Your task to perform on an android device: Show me productivity apps on the Play Store Image 0: 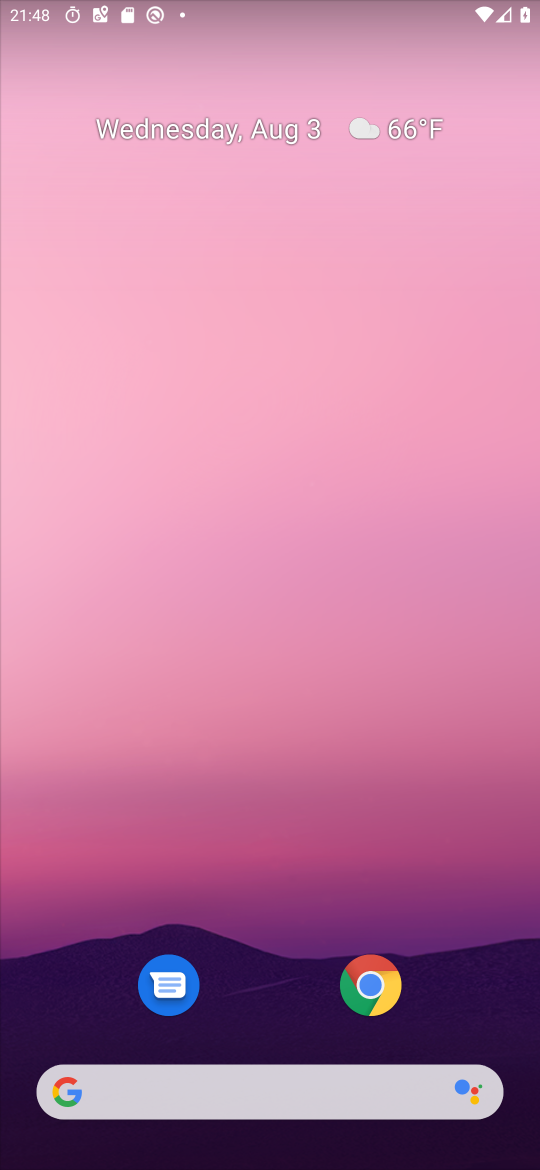
Step 0: drag from (244, 995) to (246, 313)
Your task to perform on an android device: Show me productivity apps on the Play Store Image 1: 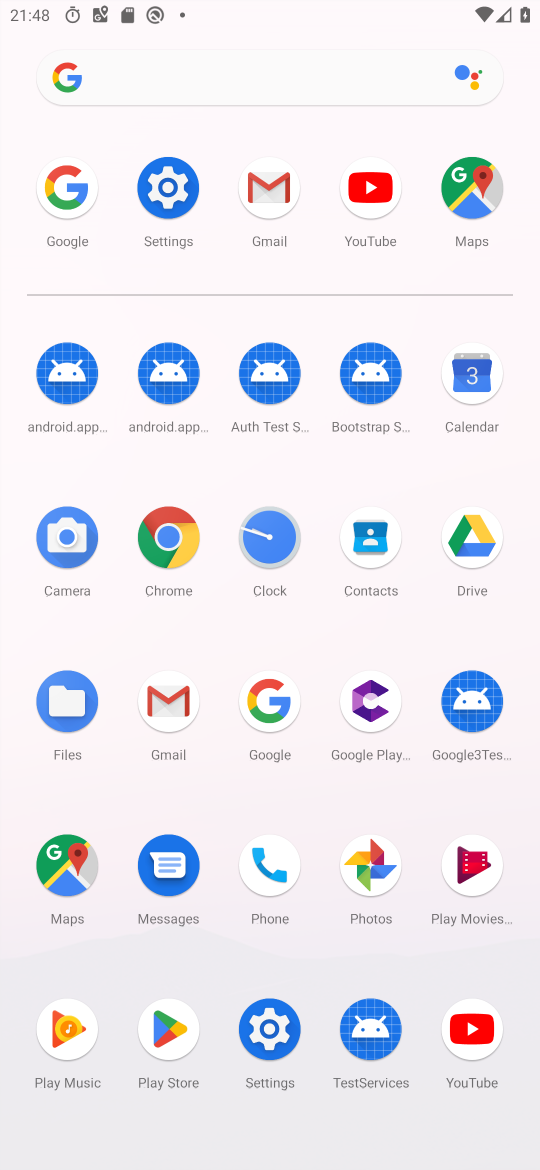
Step 1: click (171, 1033)
Your task to perform on an android device: Show me productivity apps on the Play Store Image 2: 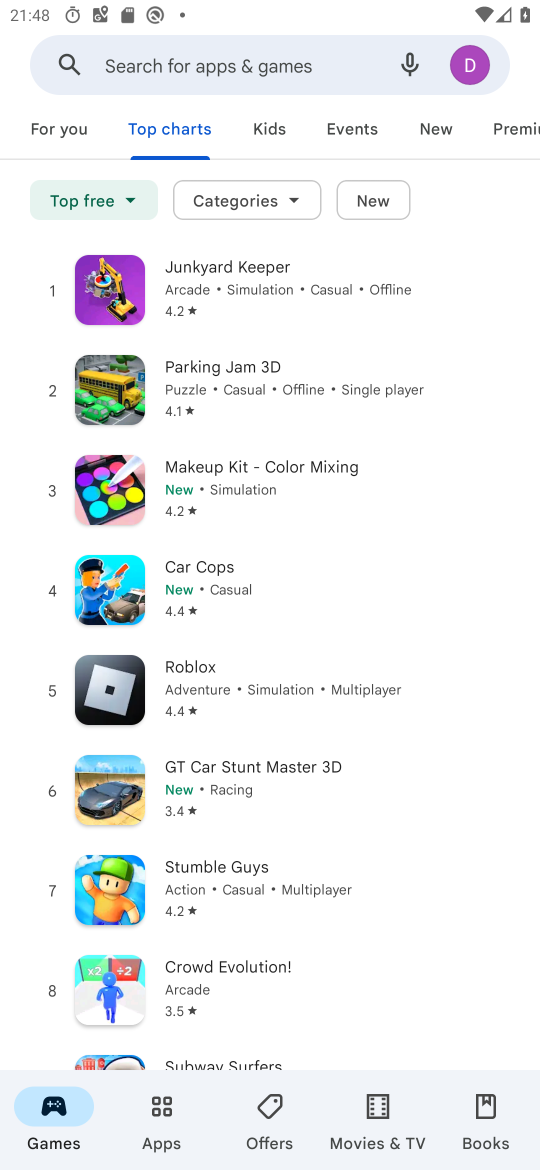
Step 2: click (156, 1131)
Your task to perform on an android device: Show me productivity apps on the Play Store Image 3: 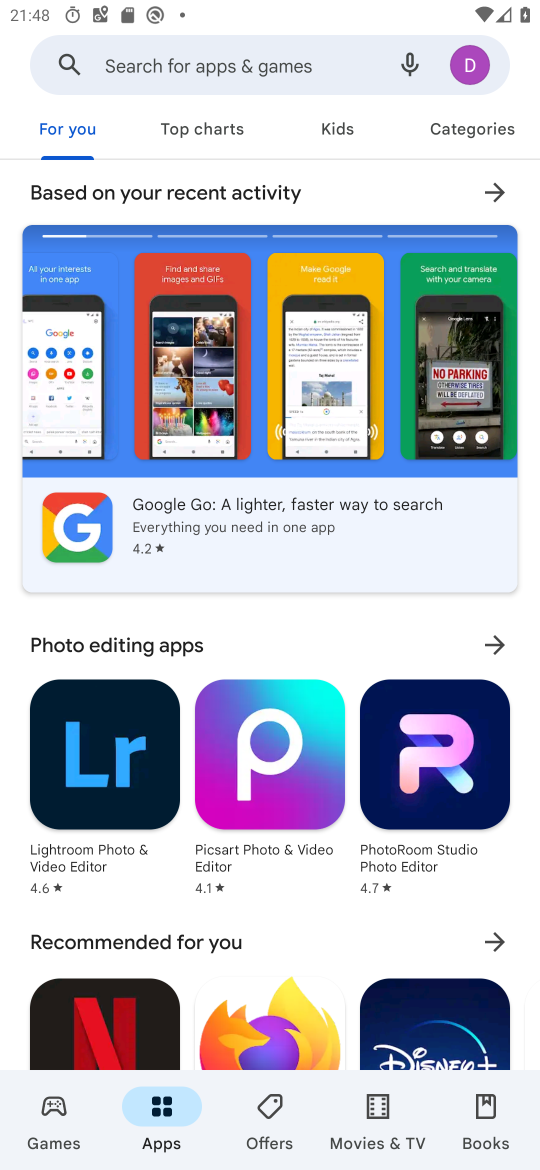
Step 3: drag from (321, 132) to (189, 129)
Your task to perform on an android device: Show me productivity apps on the Play Store Image 4: 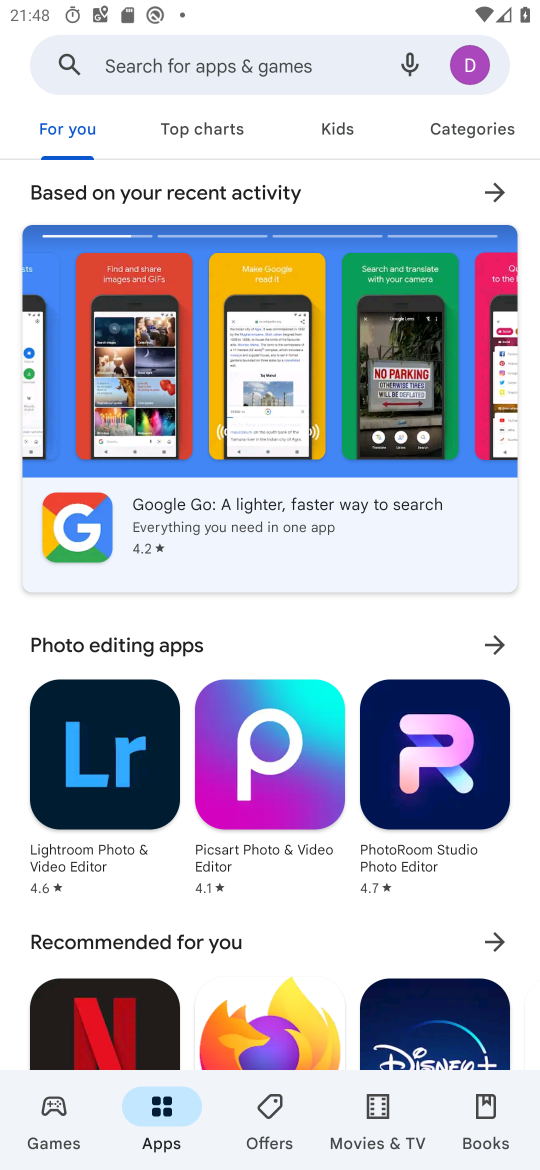
Step 4: click (440, 126)
Your task to perform on an android device: Show me productivity apps on the Play Store Image 5: 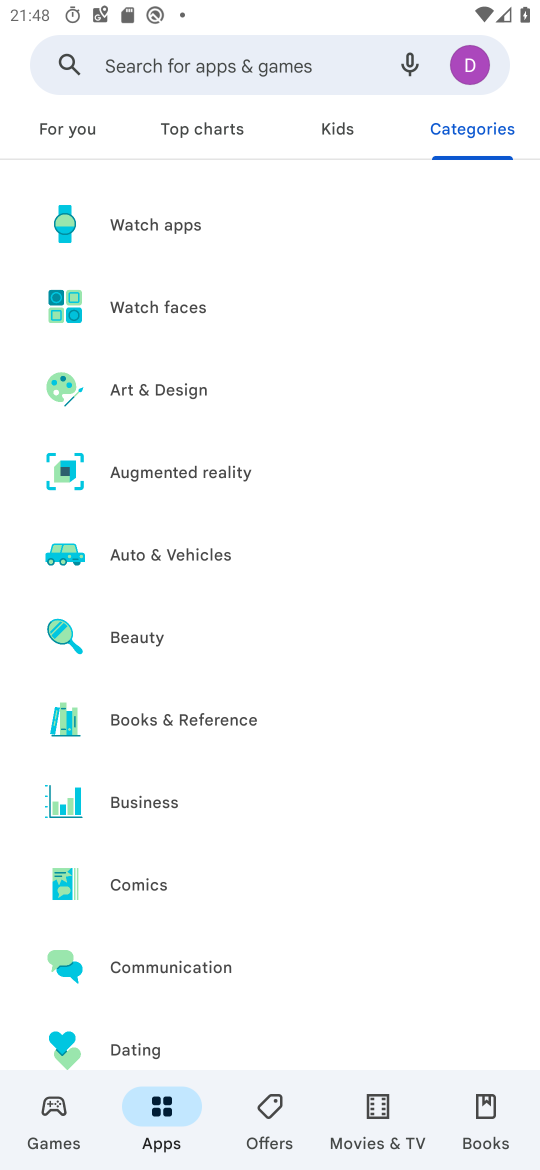
Step 5: drag from (206, 1014) to (256, 468)
Your task to perform on an android device: Show me productivity apps on the Play Store Image 6: 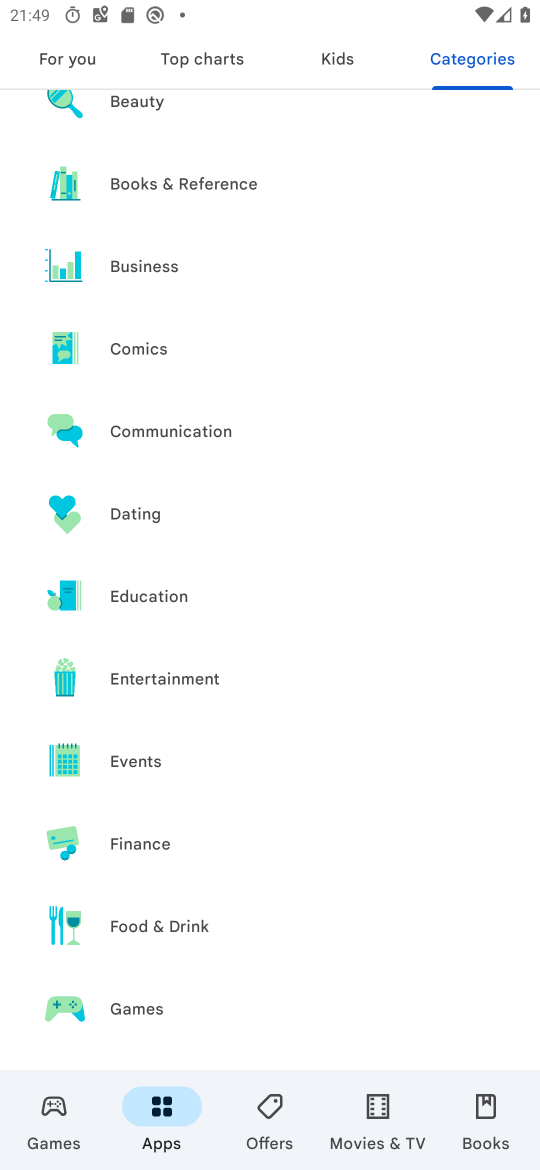
Step 6: drag from (212, 969) to (194, 474)
Your task to perform on an android device: Show me productivity apps on the Play Store Image 7: 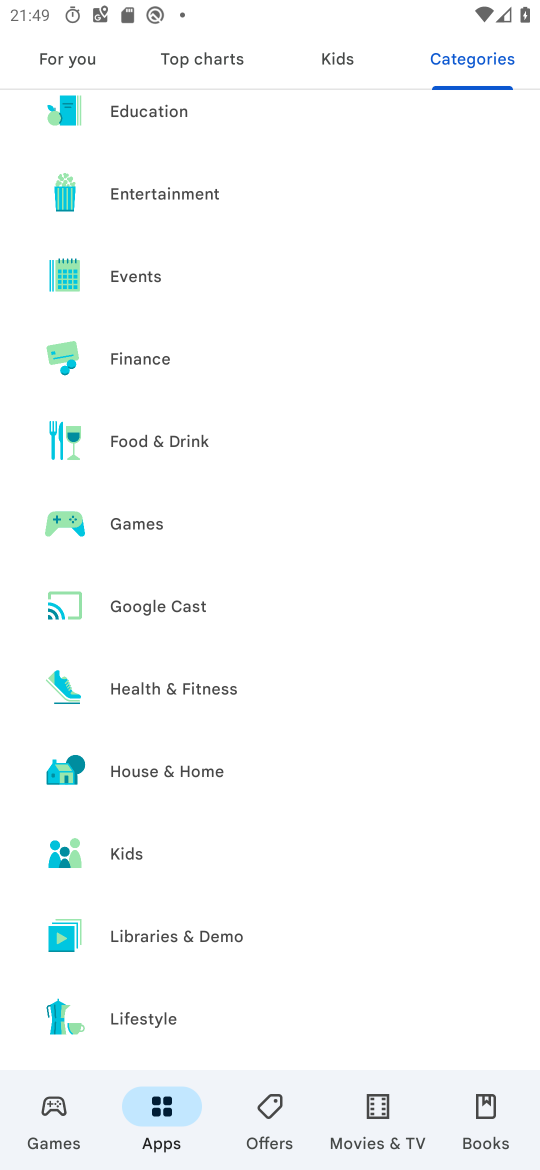
Step 7: drag from (333, 362) to (346, 230)
Your task to perform on an android device: Show me productivity apps on the Play Store Image 8: 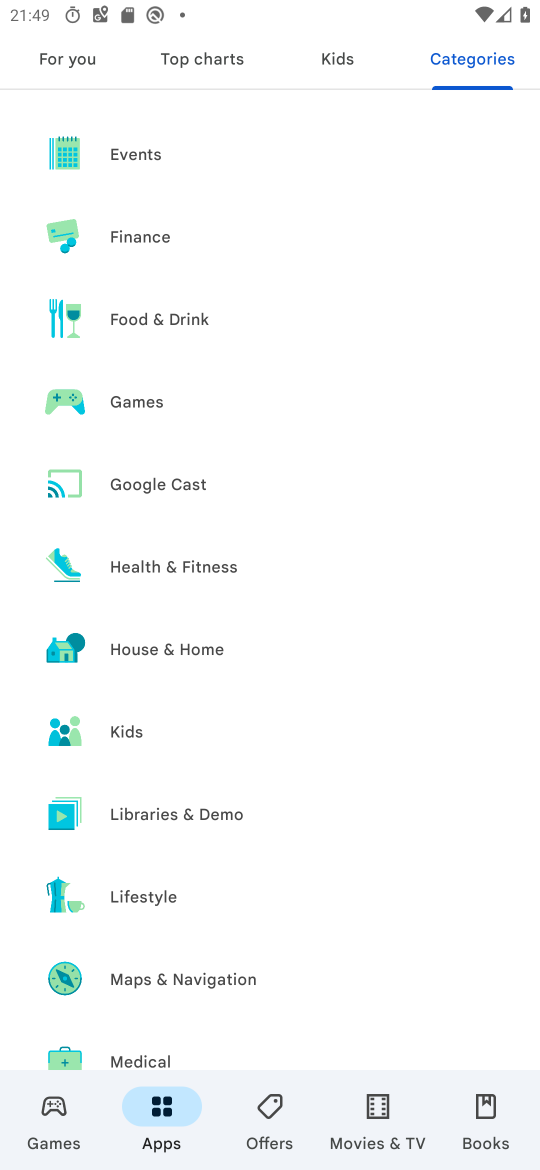
Step 8: drag from (253, 834) to (286, 364)
Your task to perform on an android device: Show me productivity apps on the Play Store Image 9: 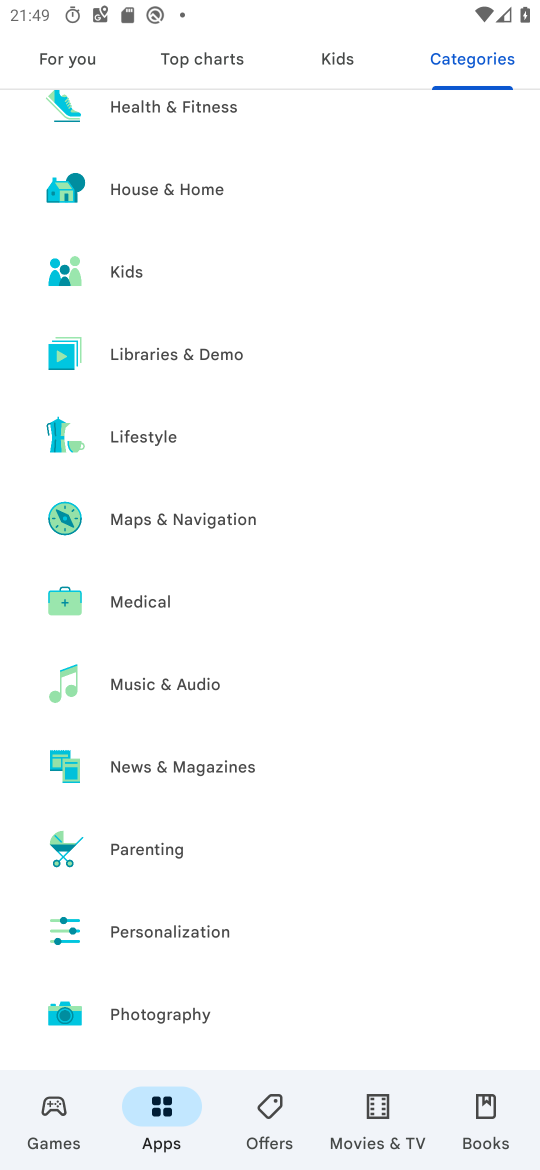
Step 9: drag from (210, 795) to (223, 431)
Your task to perform on an android device: Show me productivity apps on the Play Store Image 10: 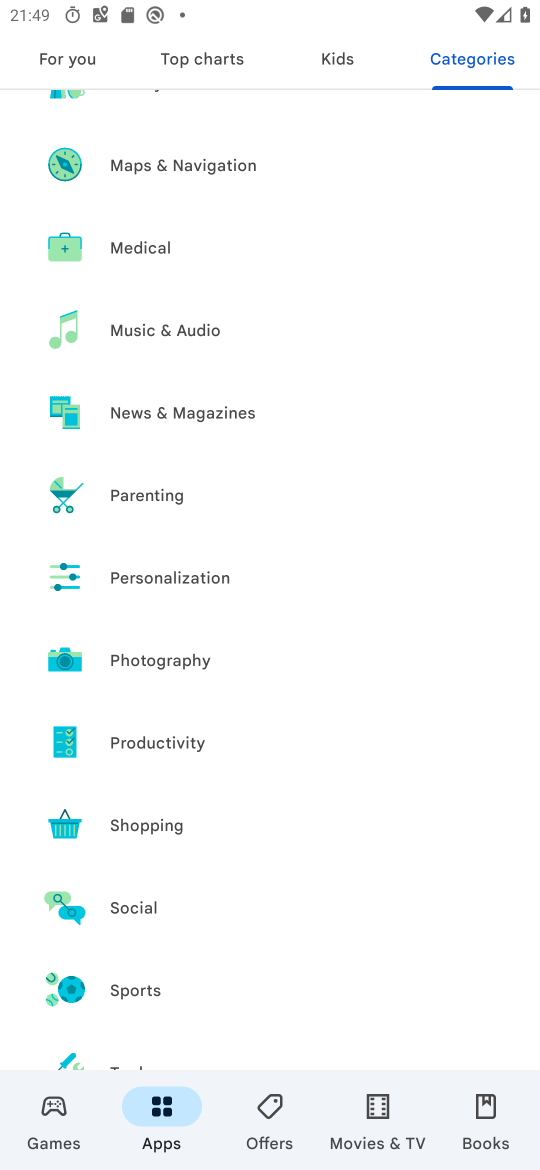
Step 10: click (180, 747)
Your task to perform on an android device: Show me productivity apps on the Play Store Image 11: 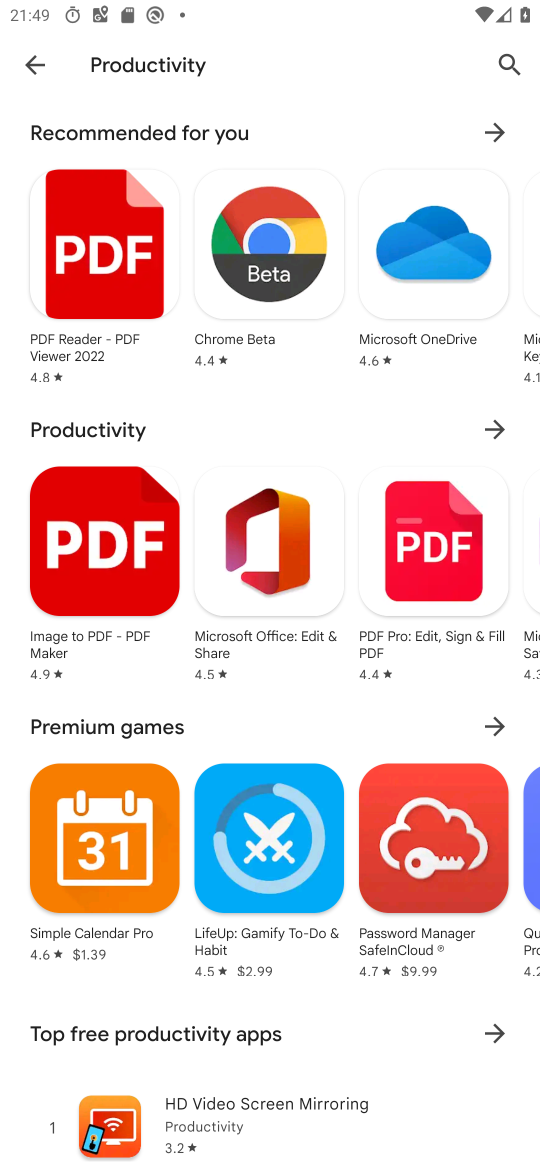
Step 11: task complete